Your task to perform on an android device: turn off location history Image 0: 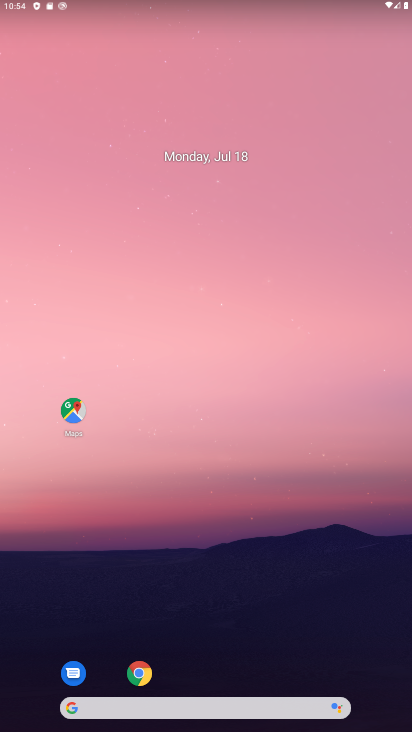
Step 0: press home button
Your task to perform on an android device: turn off location history Image 1: 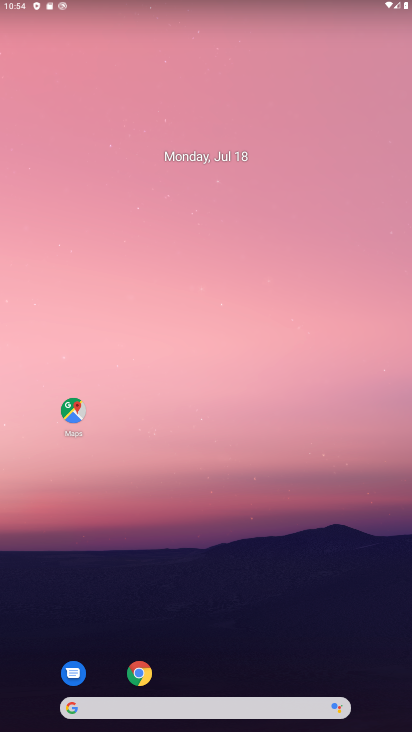
Step 1: drag from (214, 679) to (213, 52)
Your task to perform on an android device: turn off location history Image 2: 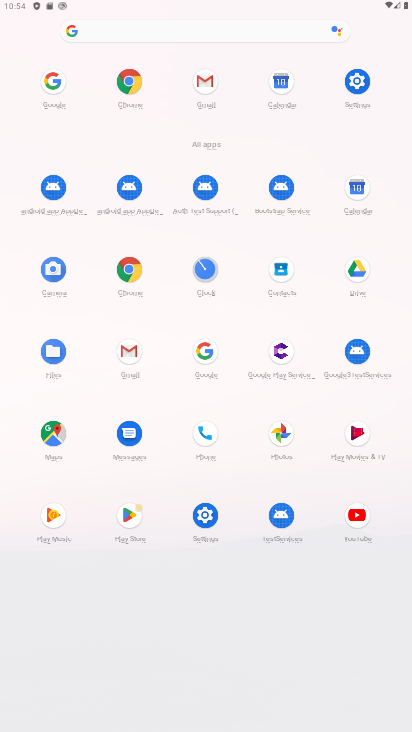
Step 2: click (52, 429)
Your task to perform on an android device: turn off location history Image 3: 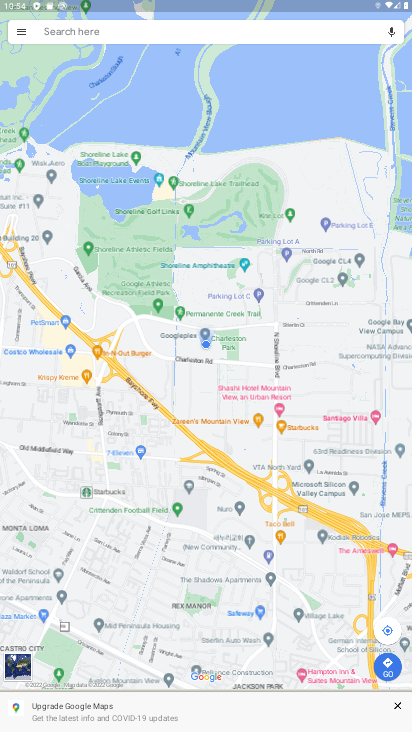
Step 3: click (16, 32)
Your task to perform on an android device: turn off location history Image 4: 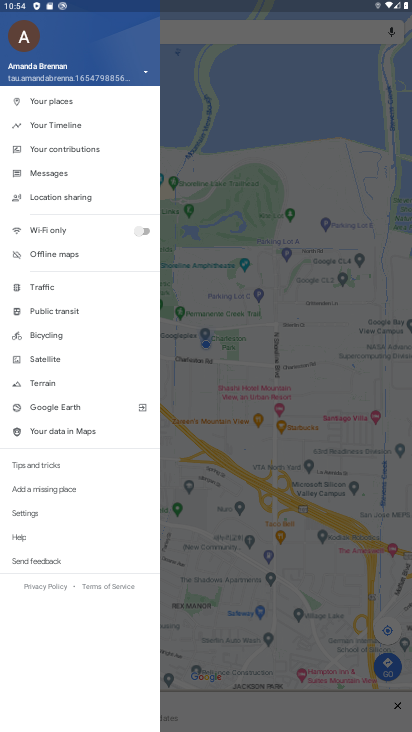
Step 4: click (66, 124)
Your task to perform on an android device: turn off location history Image 5: 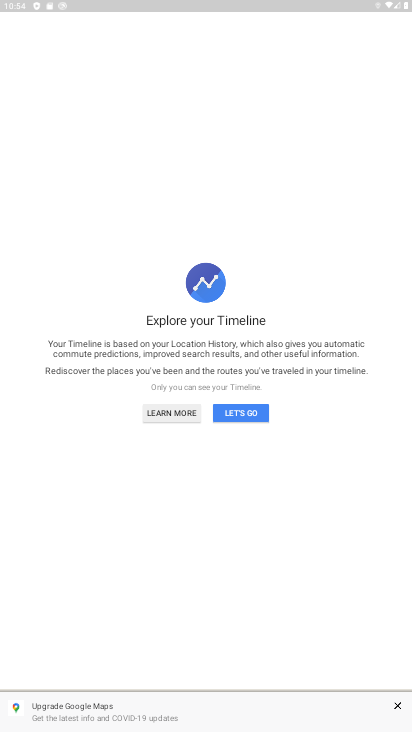
Step 5: click (246, 408)
Your task to perform on an android device: turn off location history Image 6: 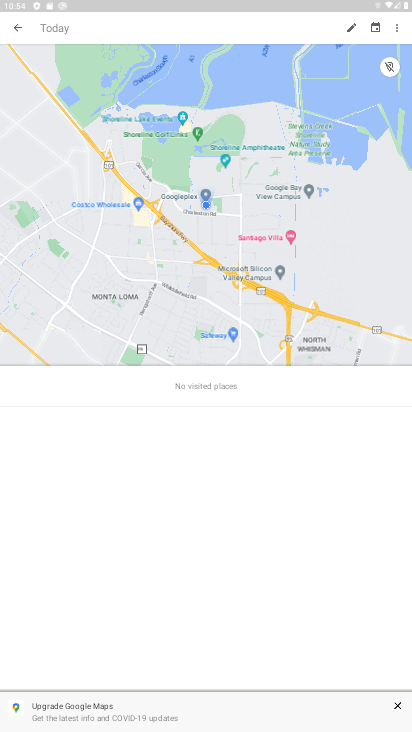
Step 6: click (396, 702)
Your task to perform on an android device: turn off location history Image 7: 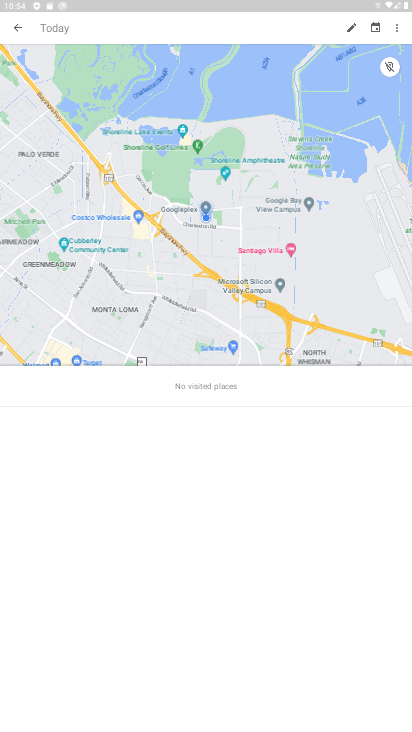
Step 7: click (393, 24)
Your task to perform on an android device: turn off location history Image 8: 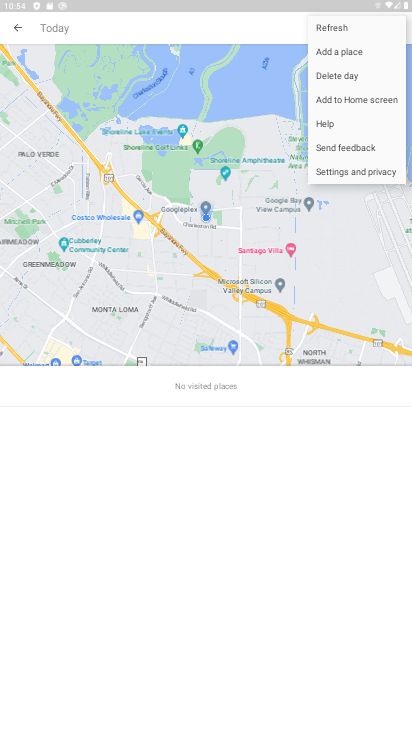
Step 8: click (358, 175)
Your task to perform on an android device: turn off location history Image 9: 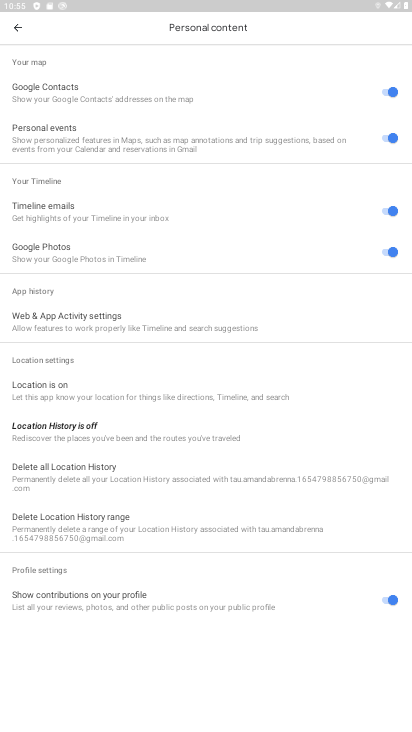
Step 9: click (88, 476)
Your task to perform on an android device: turn off location history Image 10: 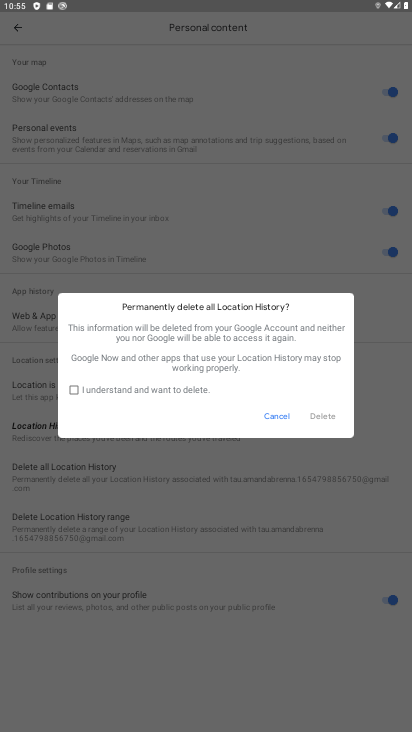
Step 10: click (70, 387)
Your task to perform on an android device: turn off location history Image 11: 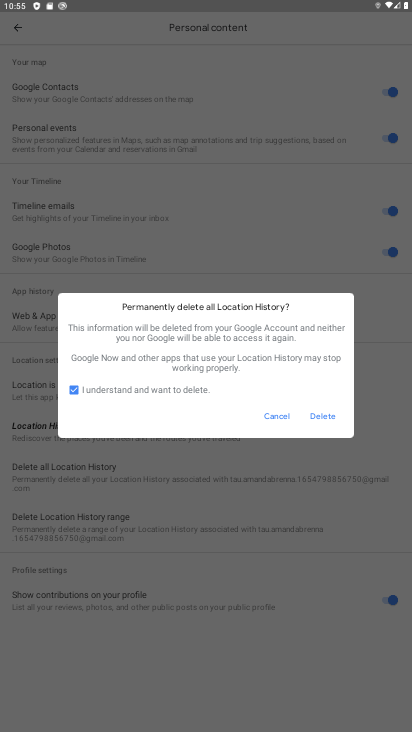
Step 11: click (321, 417)
Your task to perform on an android device: turn off location history Image 12: 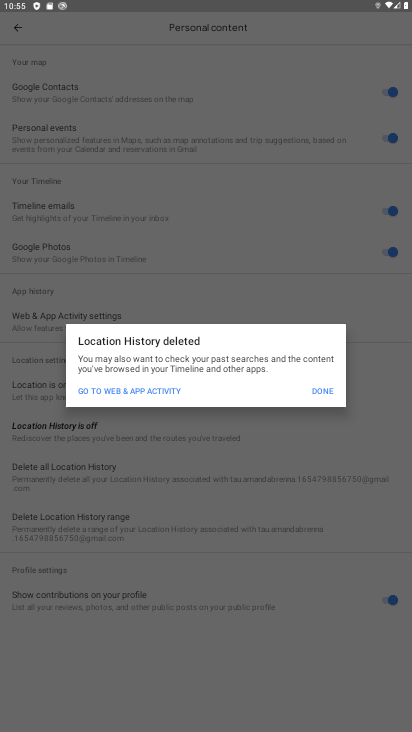
Step 12: click (319, 387)
Your task to perform on an android device: turn off location history Image 13: 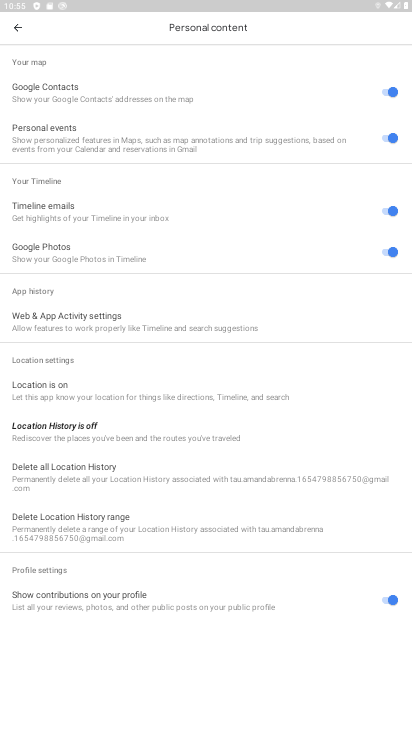
Step 13: task complete